Your task to perform on an android device: snooze an email in the gmail app Image 0: 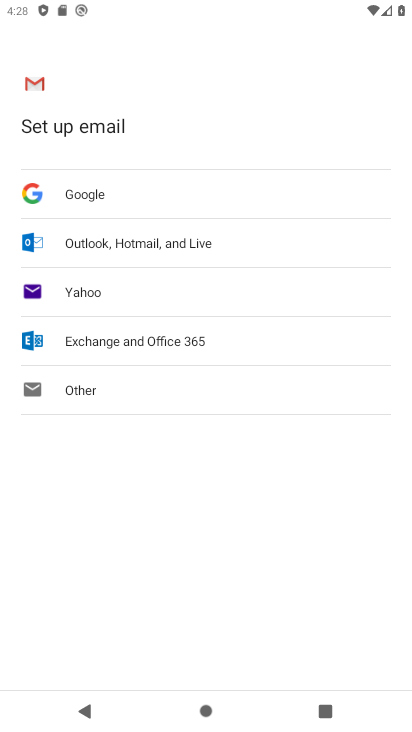
Step 0: press home button
Your task to perform on an android device: snooze an email in the gmail app Image 1: 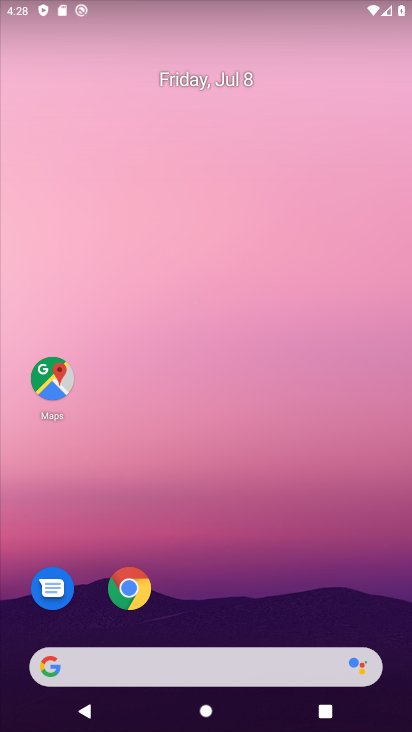
Step 1: drag from (318, 527) to (408, 191)
Your task to perform on an android device: snooze an email in the gmail app Image 2: 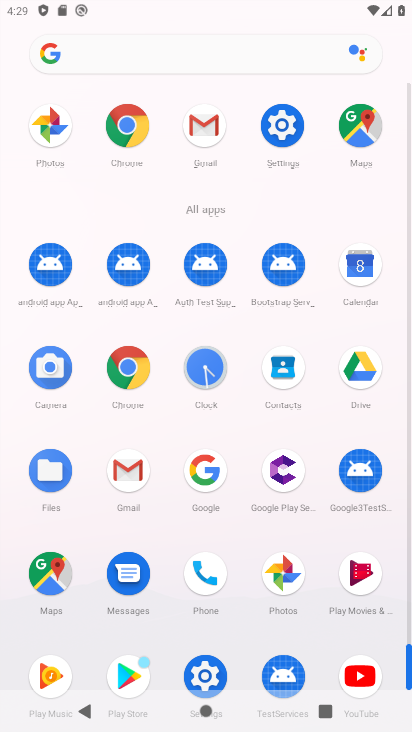
Step 2: click (129, 465)
Your task to perform on an android device: snooze an email in the gmail app Image 3: 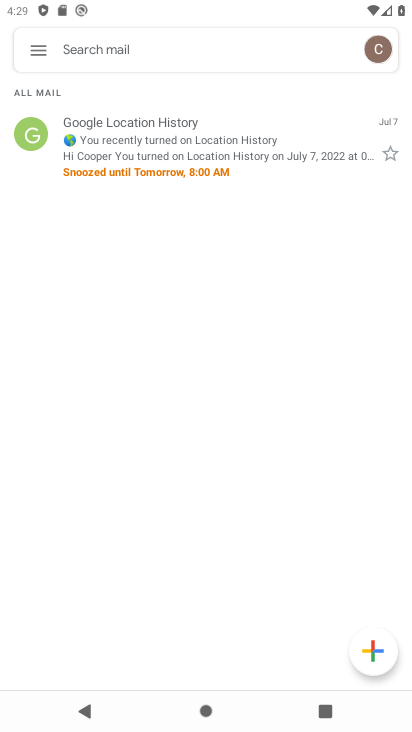
Step 3: click (241, 166)
Your task to perform on an android device: snooze an email in the gmail app Image 4: 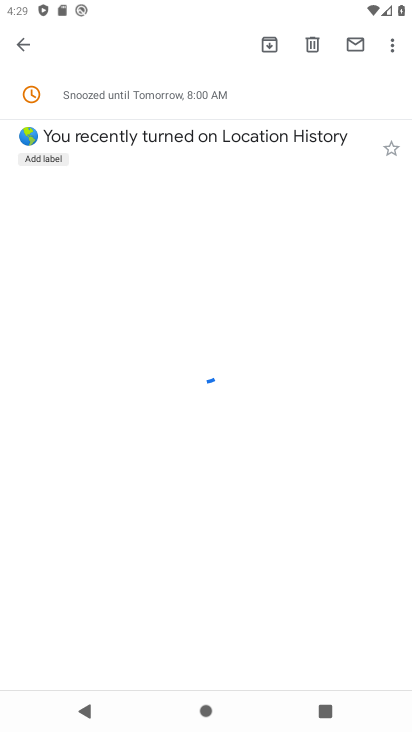
Step 4: click (391, 45)
Your task to perform on an android device: snooze an email in the gmail app Image 5: 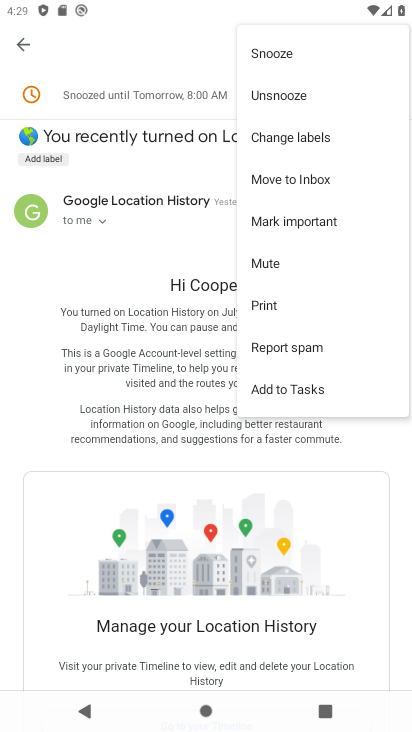
Step 5: click (375, 453)
Your task to perform on an android device: snooze an email in the gmail app Image 6: 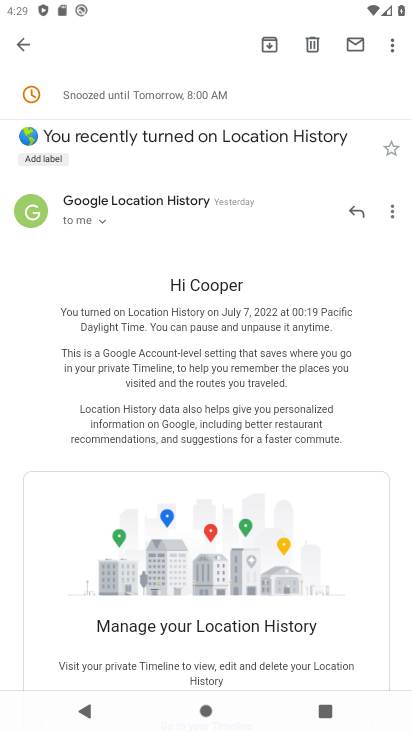
Step 6: click (380, 440)
Your task to perform on an android device: snooze an email in the gmail app Image 7: 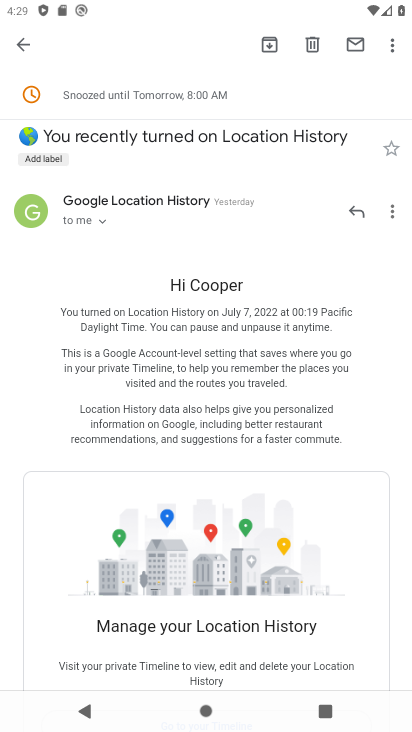
Step 7: task complete